Your task to perform on an android device: Search for pizza restaurants on Maps Image 0: 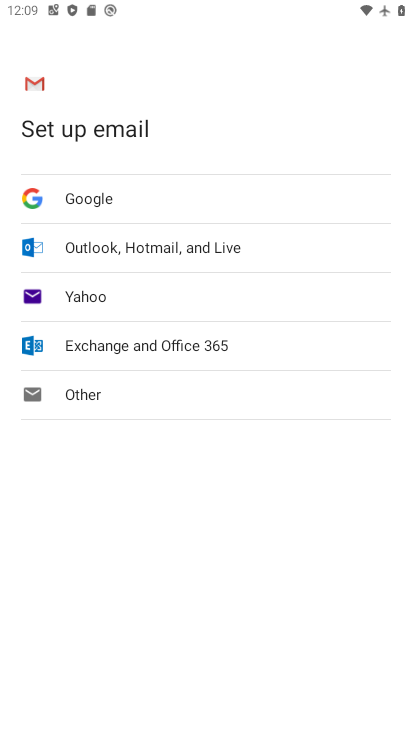
Step 0: press home button
Your task to perform on an android device: Search for pizza restaurants on Maps Image 1: 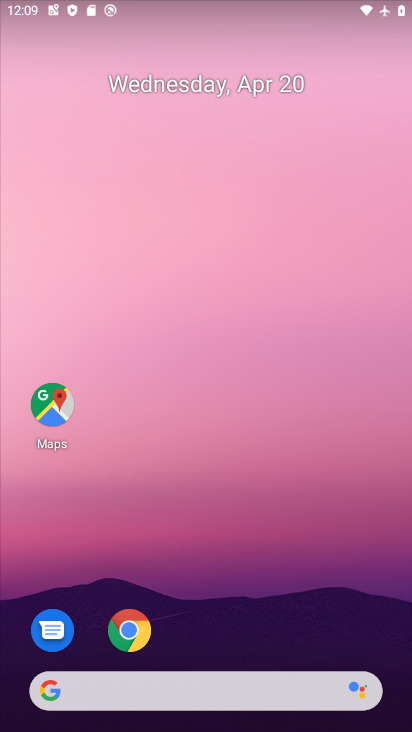
Step 1: drag from (175, 688) to (396, 117)
Your task to perform on an android device: Search for pizza restaurants on Maps Image 2: 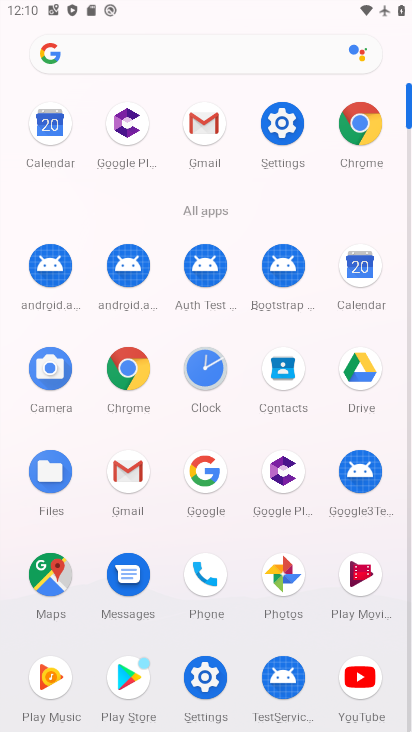
Step 2: click (46, 577)
Your task to perform on an android device: Search for pizza restaurants on Maps Image 3: 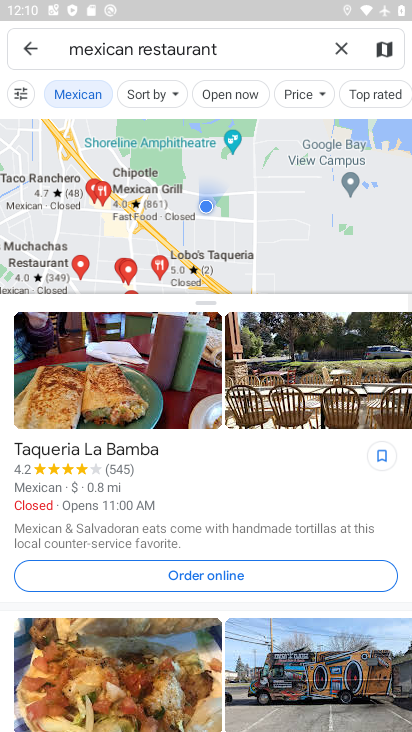
Step 3: click (340, 48)
Your task to perform on an android device: Search for pizza restaurants on Maps Image 4: 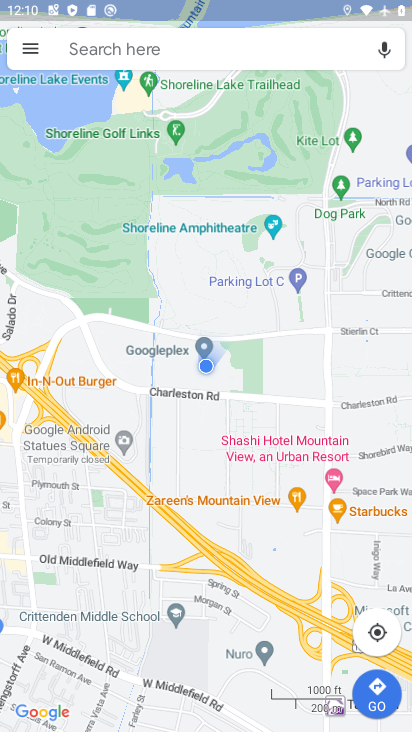
Step 4: click (188, 50)
Your task to perform on an android device: Search for pizza restaurants on Maps Image 5: 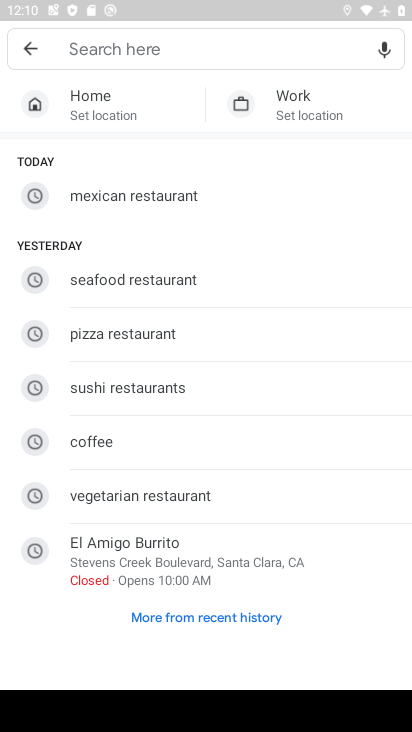
Step 5: click (121, 340)
Your task to perform on an android device: Search for pizza restaurants on Maps Image 6: 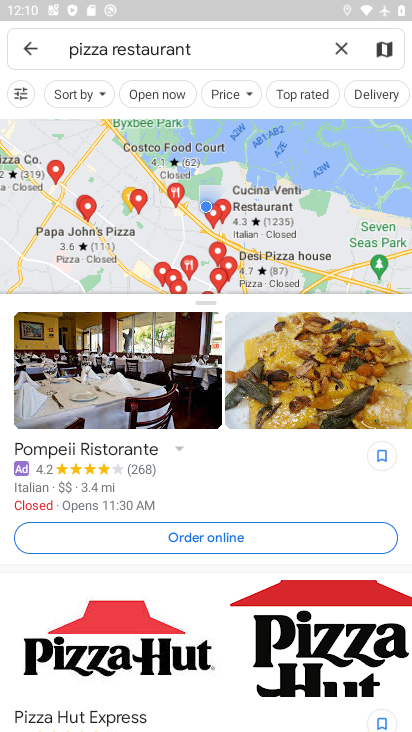
Step 6: task complete